Your task to perform on an android device: delete a single message in the gmail app Image 0: 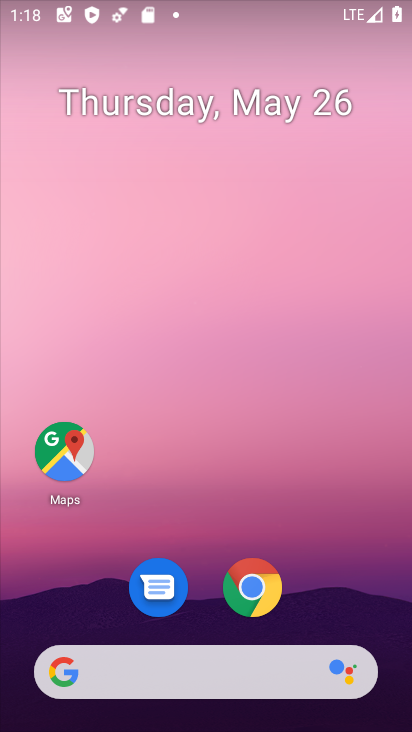
Step 0: drag from (364, 589) to (356, 296)
Your task to perform on an android device: delete a single message in the gmail app Image 1: 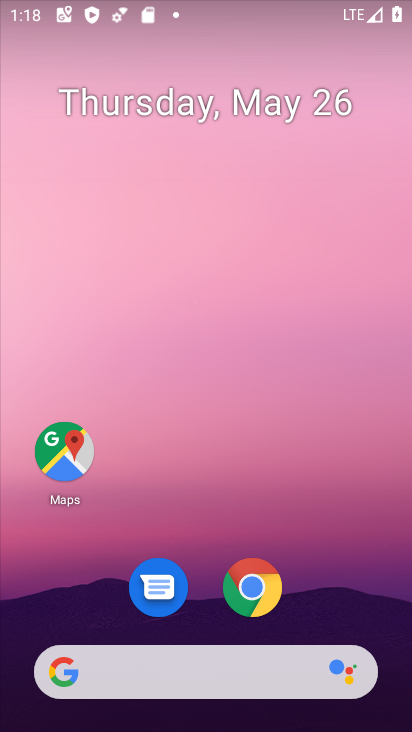
Step 1: drag from (373, 604) to (363, 328)
Your task to perform on an android device: delete a single message in the gmail app Image 2: 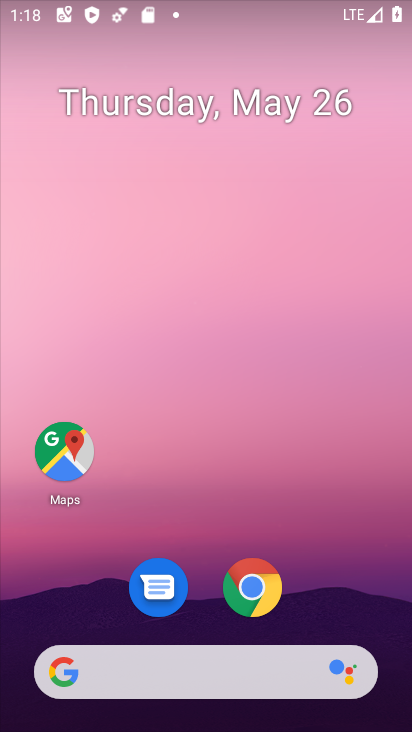
Step 2: drag from (366, 601) to (410, 327)
Your task to perform on an android device: delete a single message in the gmail app Image 3: 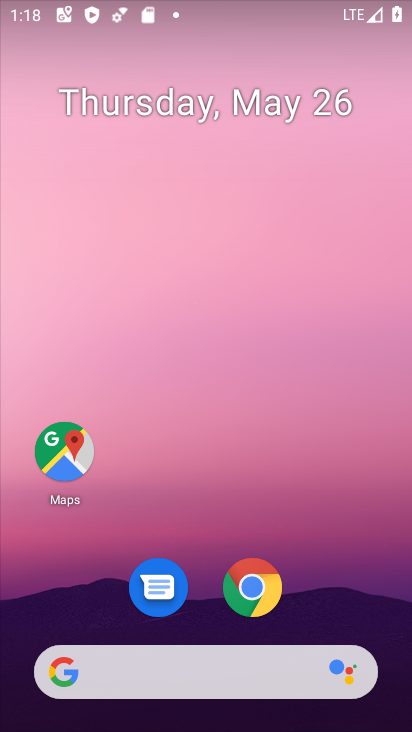
Step 3: drag from (329, 509) to (316, 144)
Your task to perform on an android device: delete a single message in the gmail app Image 4: 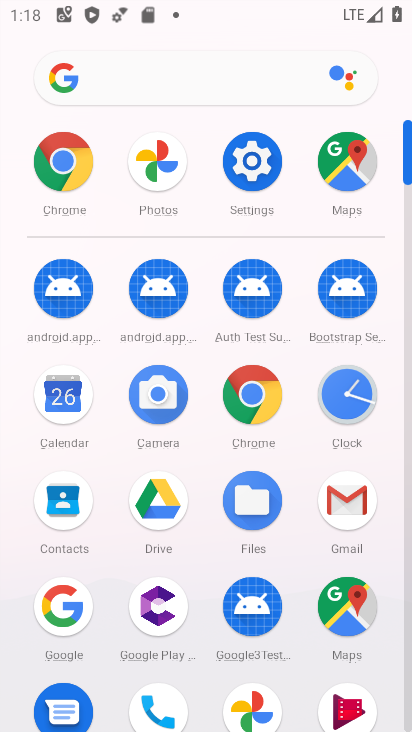
Step 4: click (352, 512)
Your task to perform on an android device: delete a single message in the gmail app Image 5: 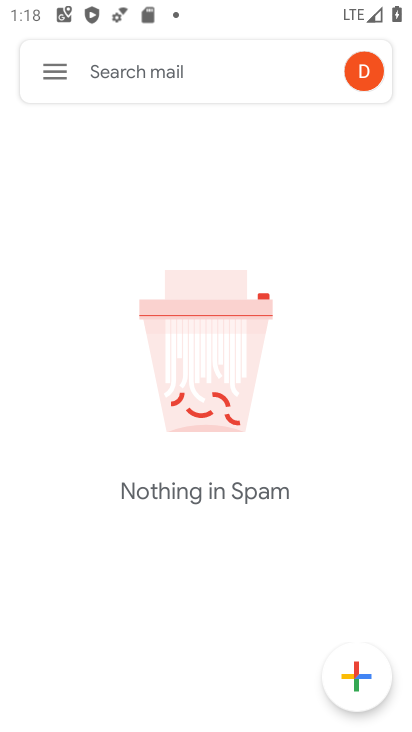
Step 5: click (52, 71)
Your task to perform on an android device: delete a single message in the gmail app Image 6: 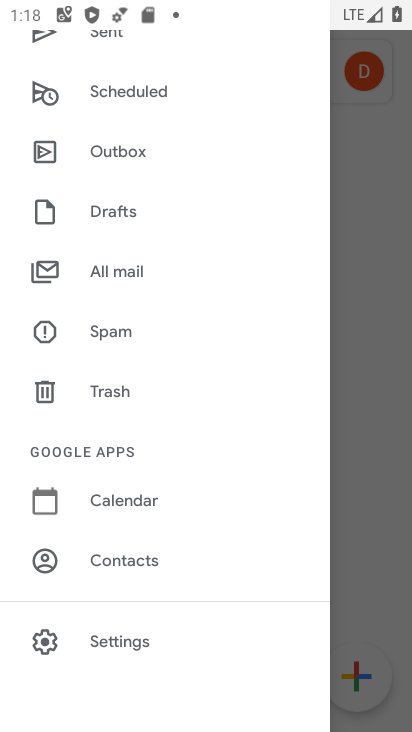
Step 6: drag from (224, 215) to (239, 374)
Your task to perform on an android device: delete a single message in the gmail app Image 7: 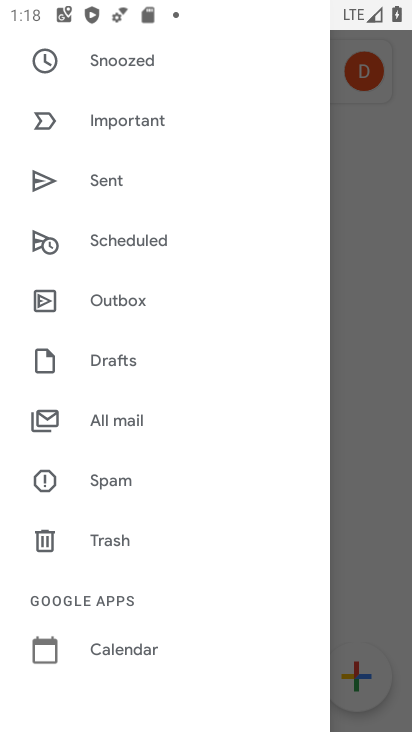
Step 7: drag from (228, 215) to (239, 336)
Your task to perform on an android device: delete a single message in the gmail app Image 8: 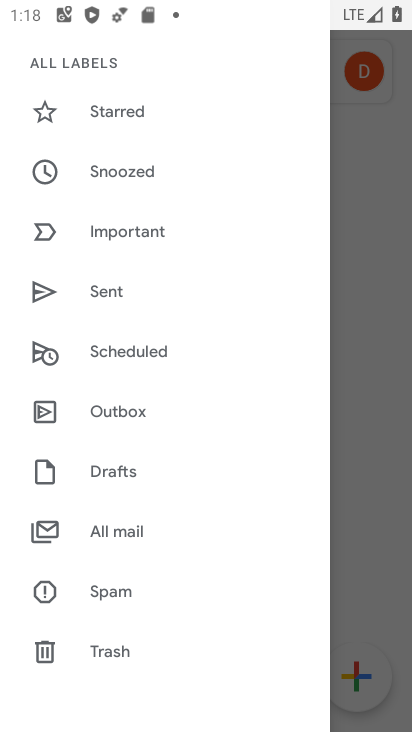
Step 8: drag from (225, 182) to (224, 319)
Your task to perform on an android device: delete a single message in the gmail app Image 9: 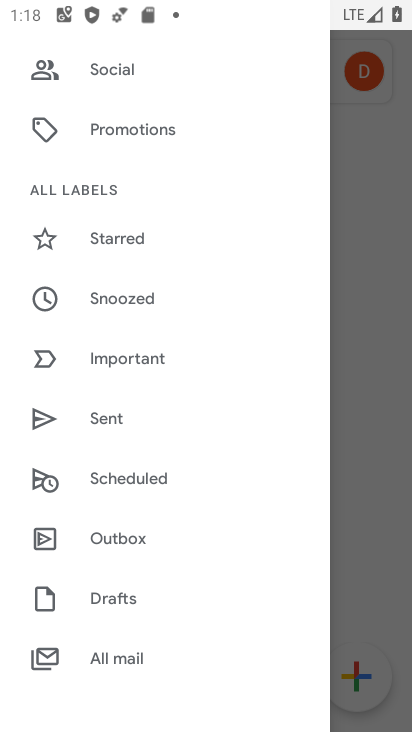
Step 9: drag from (213, 184) to (214, 299)
Your task to perform on an android device: delete a single message in the gmail app Image 10: 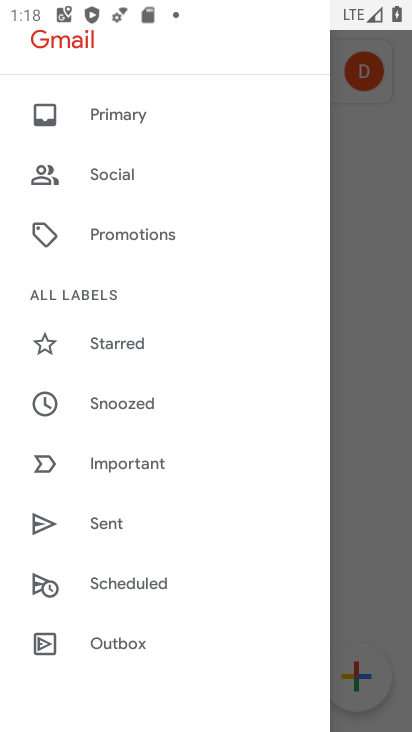
Step 10: drag from (216, 169) to (222, 278)
Your task to perform on an android device: delete a single message in the gmail app Image 11: 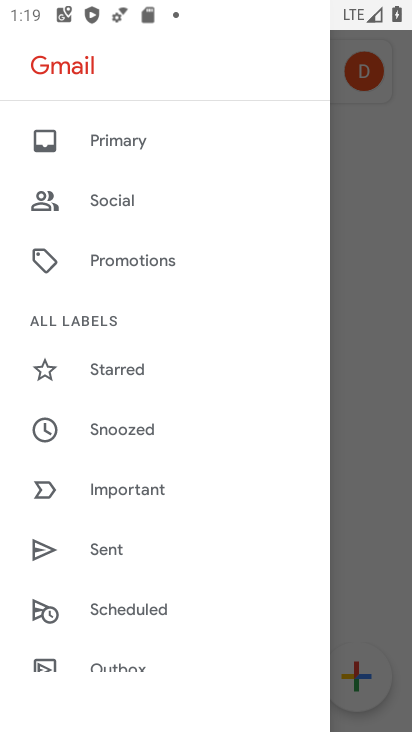
Step 11: drag from (206, 173) to (217, 271)
Your task to perform on an android device: delete a single message in the gmail app Image 12: 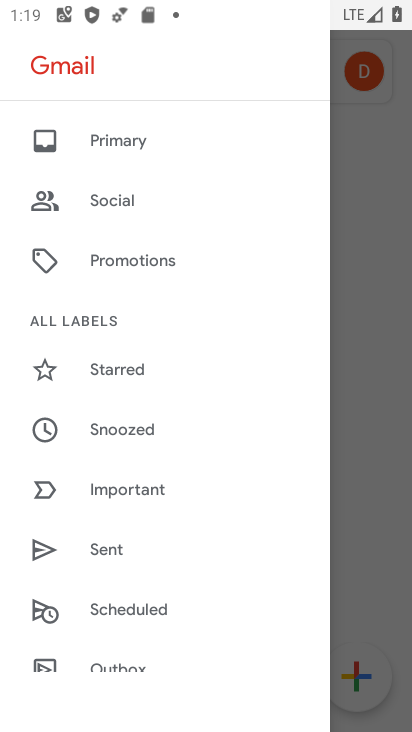
Step 12: click (144, 151)
Your task to perform on an android device: delete a single message in the gmail app Image 13: 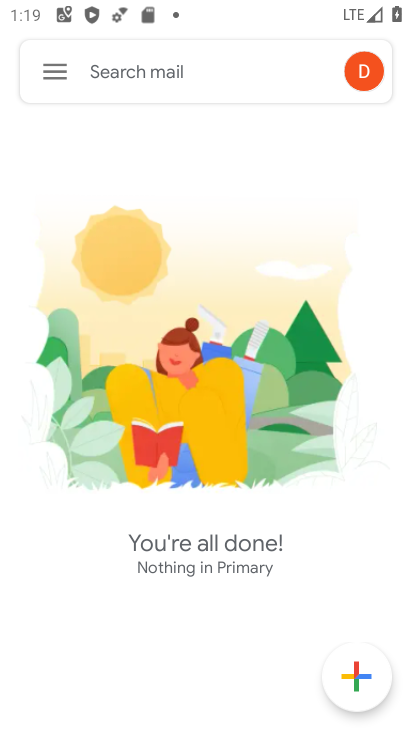
Step 13: task complete